Your task to perform on an android device: set the stopwatch Image 0: 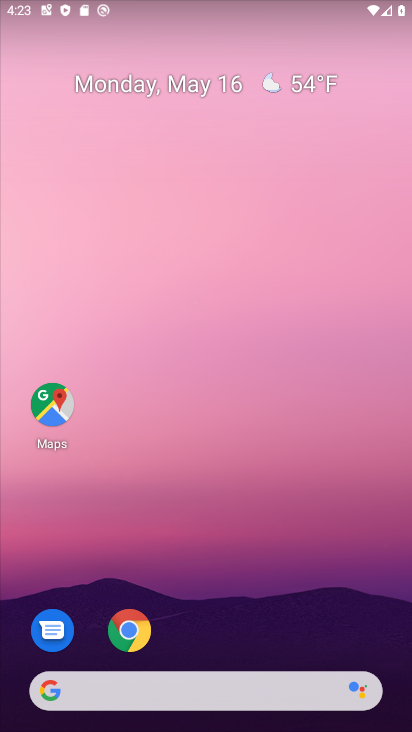
Step 0: drag from (221, 645) to (189, 217)
Your task to perform on an android device: set the stopwatch Image 1: 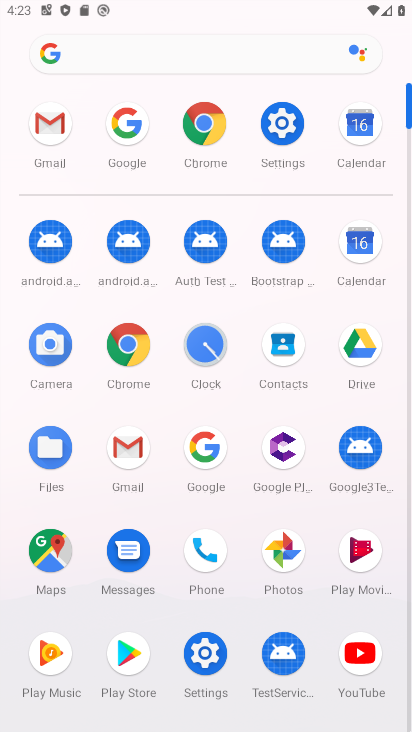
Step 1: click (206, 356)
Your task to perform on an android device: set the stopwatch Image 2: 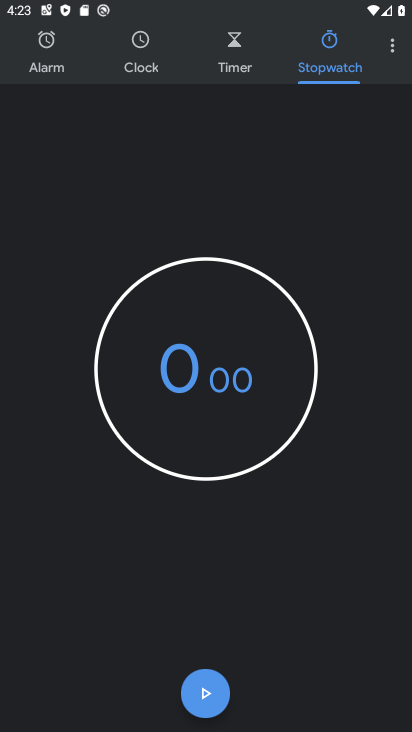
Step 2: click (210, 680)
Your task to perform on an android device: set the stopwatch Image 3: 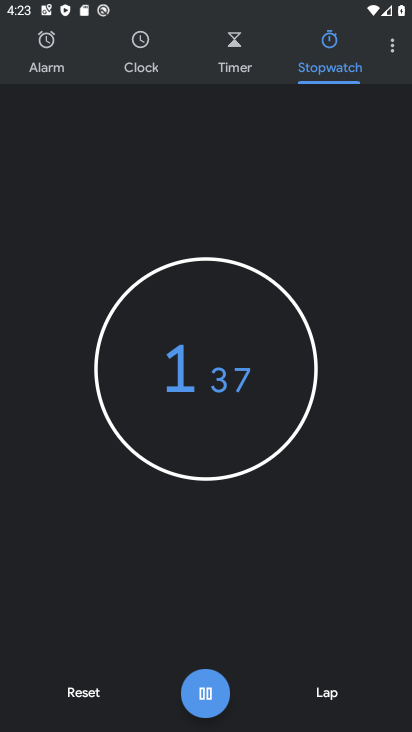
Step 3: task complete